Your task to perform on an android device: turn on data saver in the chrome app Image 0: 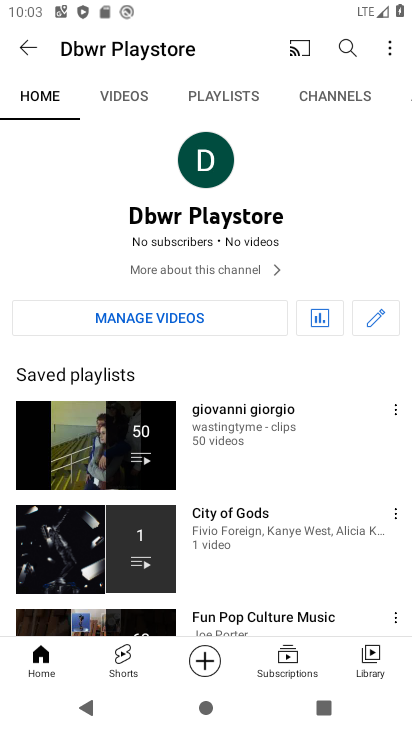
Step 0: press home button
Your task to perform on an android device: turn on data saver in the chrome app Image 1: 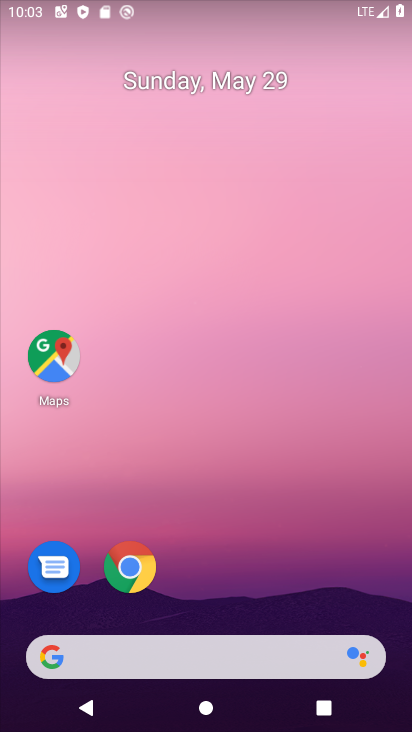
Step 1: click (127, 571)
Your task to perform on an android device: turn on data saver in the chrome app Image 2: 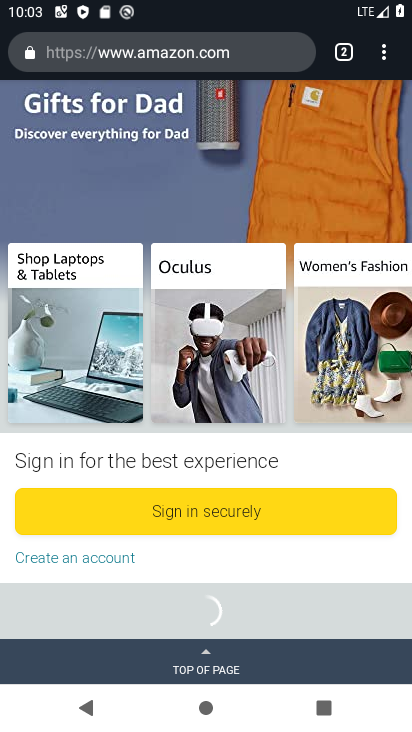
Step 2: click (384, 60)
Your task to perform on an android device: turn on data saver in the chrome app Image 3: 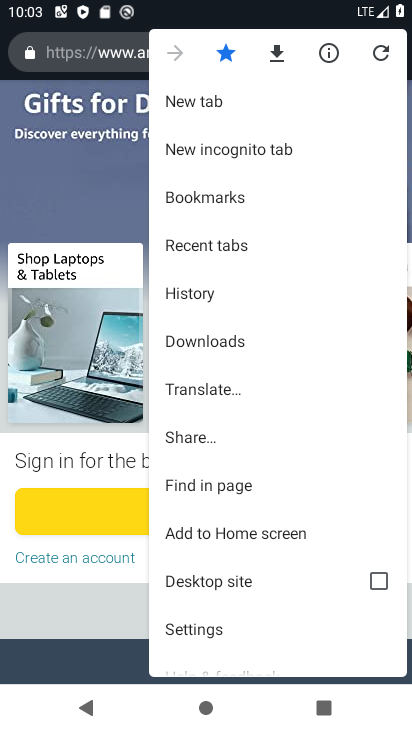
Step 3: click (200, 635)
Your task to perform on an android device: turn on data saver in the chrome app Image 4: 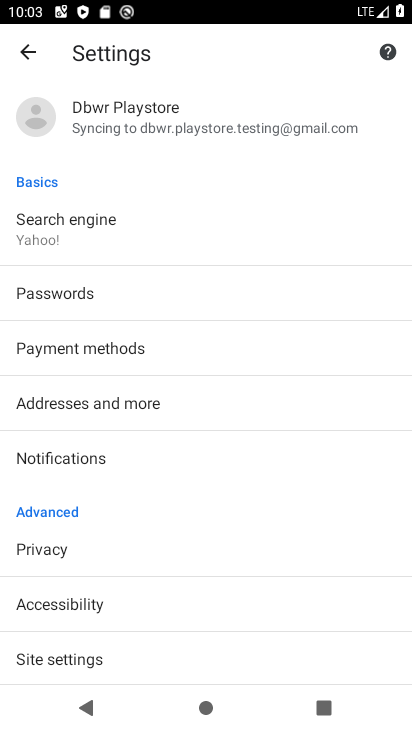
Step 4: drag from (202, 611) to (173, 211)
Your task to perform on an android device: turn on data saver in the chrome app Image 5: 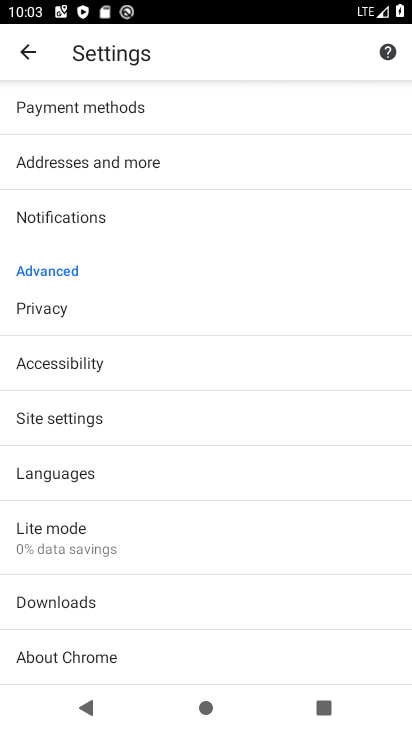
Step 5: click (55, 533)
Your task to perform on an android device: turn on data saver in the chrome app Image 6: 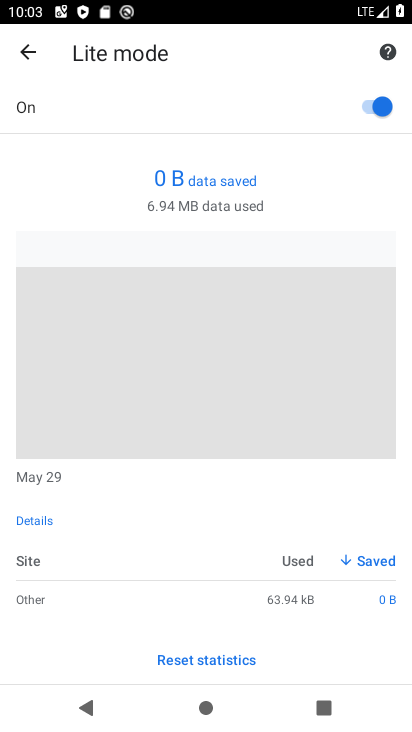
Step 6: task complete